Your task to perform on an android device: What's the weather going to be tomorrow? Image 0: 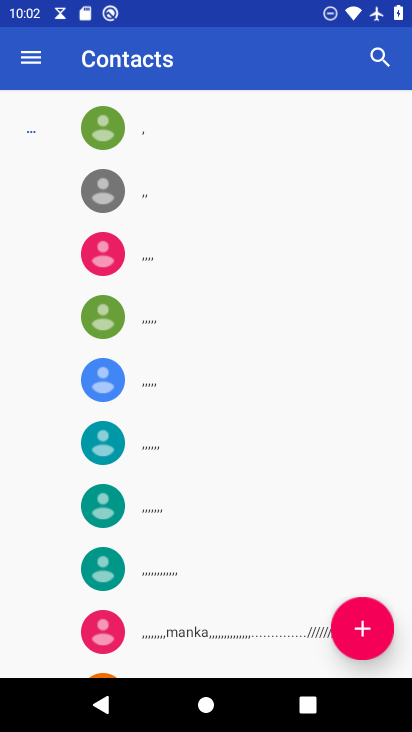
Step 0: press home button
Your task to perform on an android device: What's the weather going to be tomorrow? Image 1: 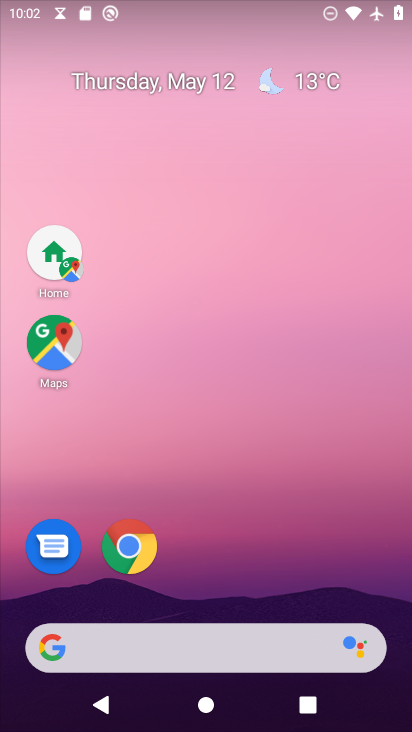
Step 1: click (316, 85)
Your task to perform on an android device: What's the weather going to be tomorrow? Image 2: 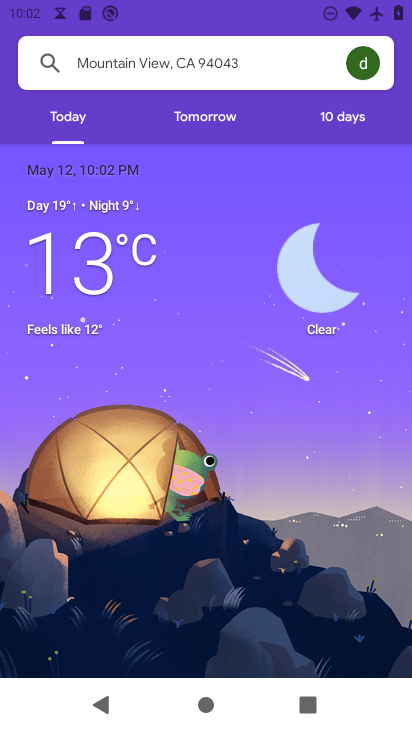
Step 2: click (196, 112)
Your task to perform on an android device: What's the weather going to be tomorrow? Image 3: 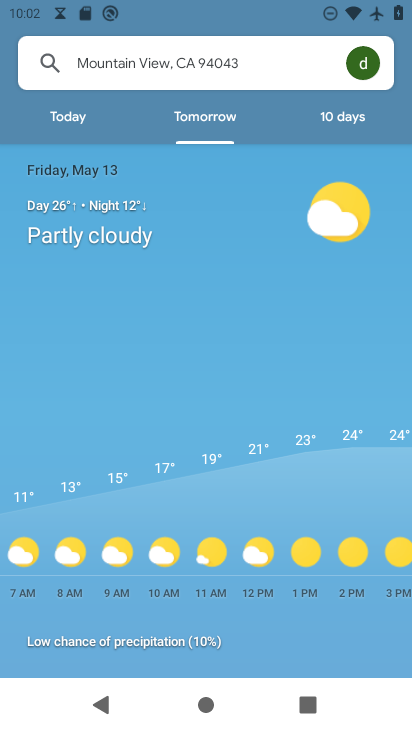
Step 3: task complete